Your task to perform on an android device: Open display settings Image 0: 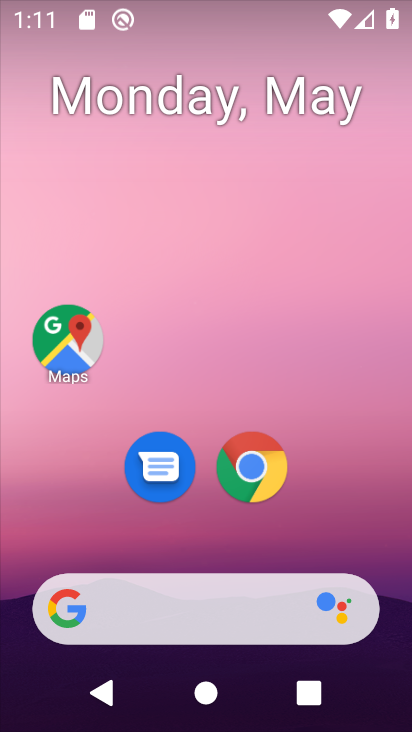
Step 0: drag from (177, 574) to (117, 9)
Your task to perform on an android device: Open display settings Image 1: 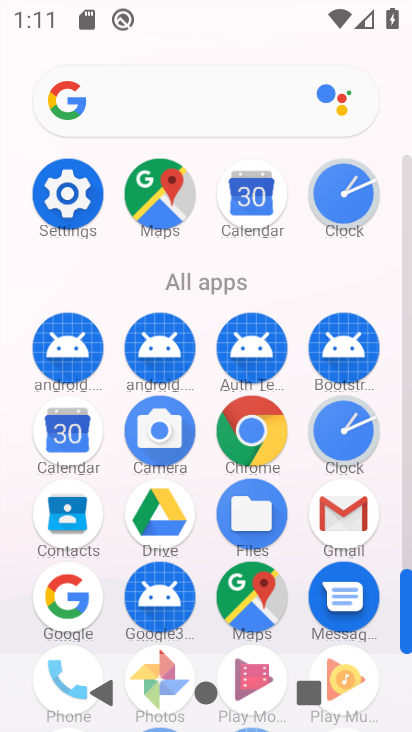
Step 1: click (69, 199)
Your task to perform on an android device: Open display settings Image 2: 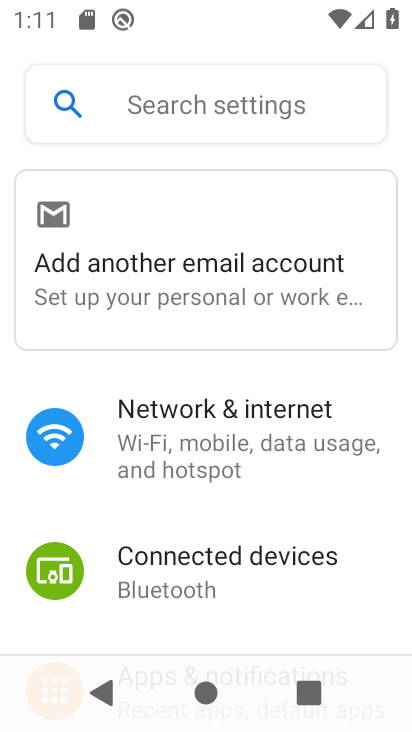
Step 2: drag from (235, 571) to (207, 144)
Your task to perform on an android device: Open display settings Image 3: 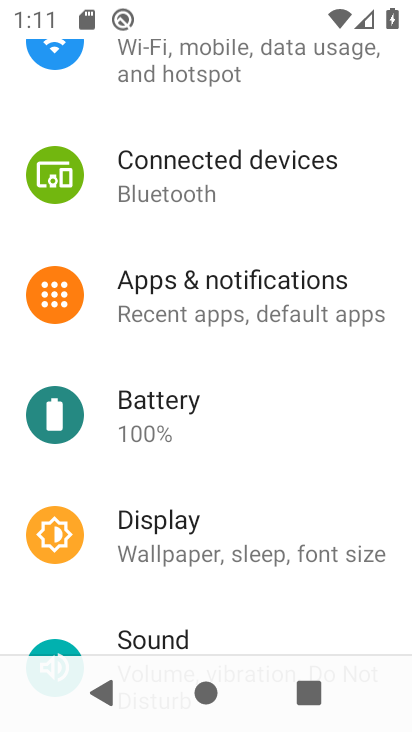
Step 3: click (193, 529)
Your task to perform on an android device: Open display settings Image 4: 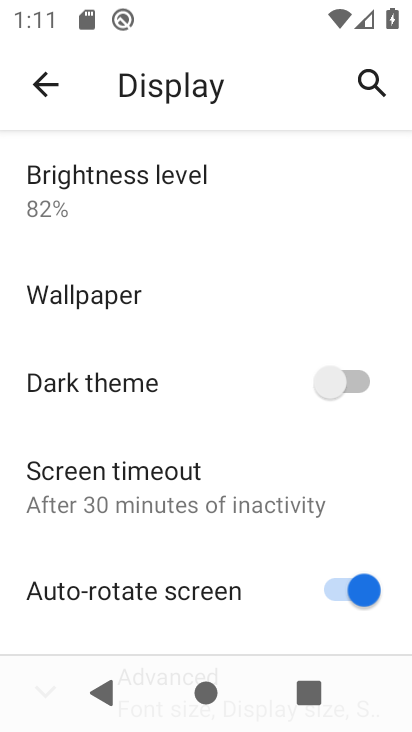
Step 4: task complete